Your task to perform on an android device: Go to accessibility settings Image 0: 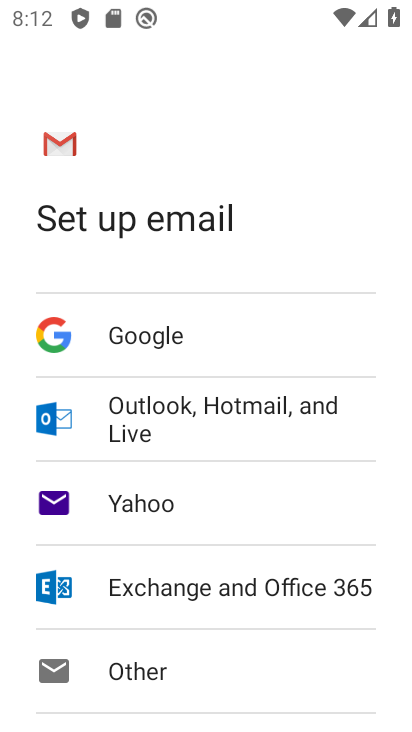
Step 0: press home button
Your task to perform on an android device: Go to accessibility settings Image 1: 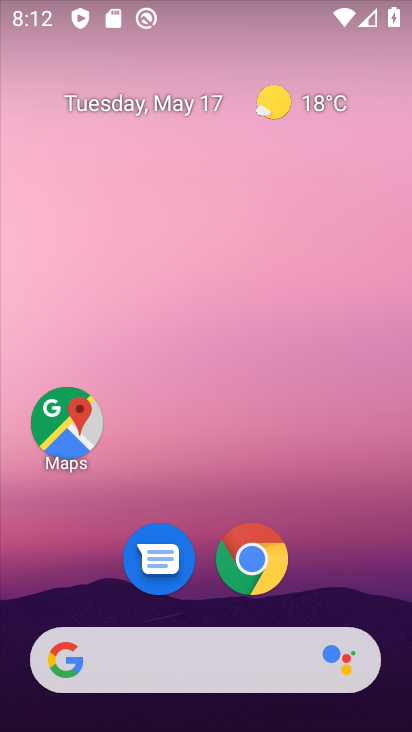
Step 1: drag from (178, 647) to (148, 248)
Your task to perform on an android device: Go to accessibility settings Image 2: 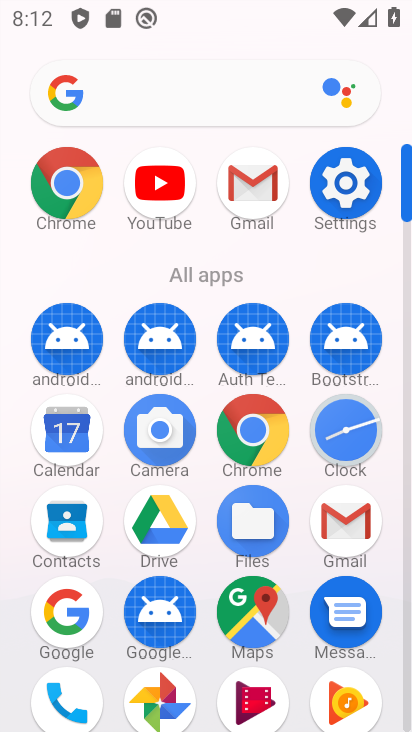
Step 2: click (348, 199)
Your task to perform on an android device: Go to accessibility settings Image 3: 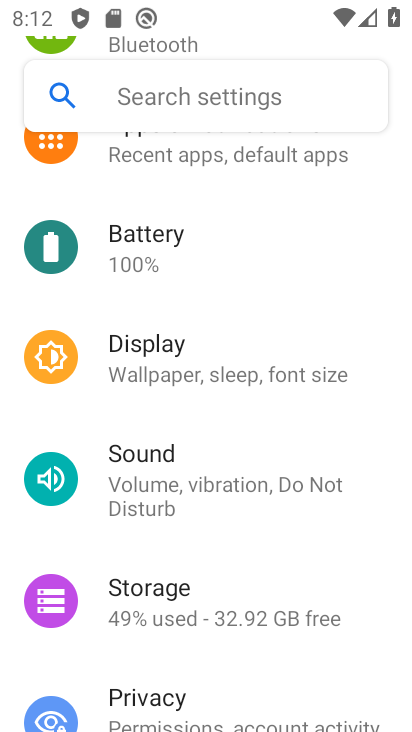
Step 3: drag from (203, 620) to (150, 168)
Your task to perform on an android device: Go to accessibility settings Image 4: 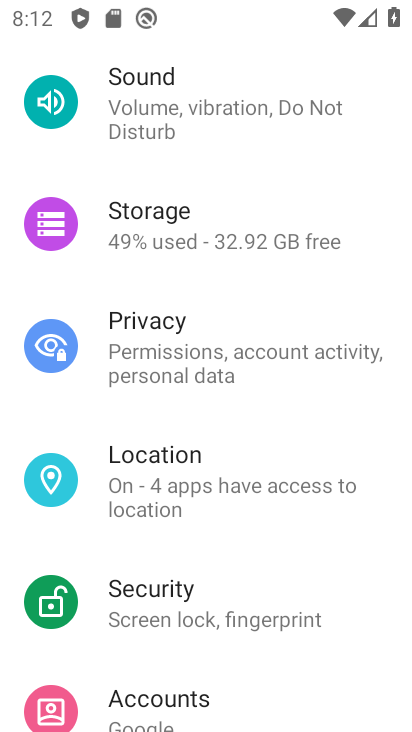
Step 4: drag from (215, 607) to (203, 232)
Your task to perform on an android device: Go to accessibility settings Image 5: 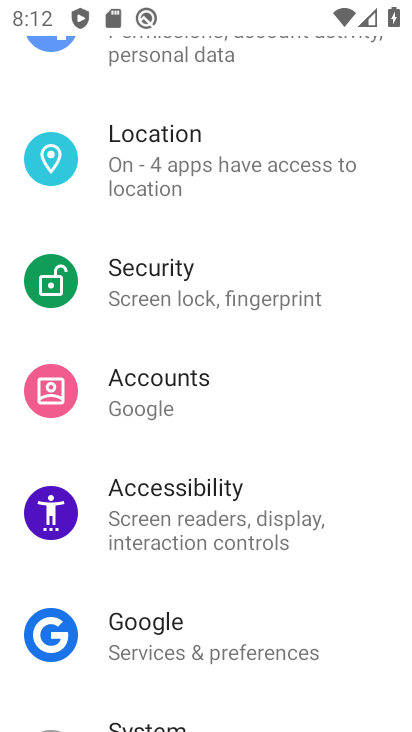
Step 5: click (236, 516)
Your task to perform on an android device: Go to accessibility settings Image 6: 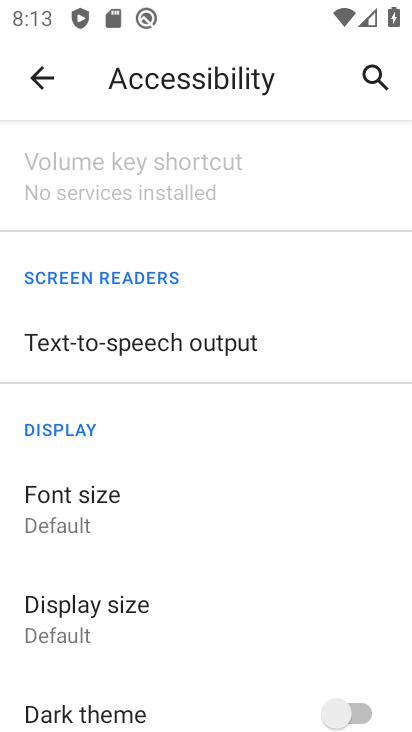
Step 6: task complete